Your task to perform on an android device: Go to notification settings Image 0: 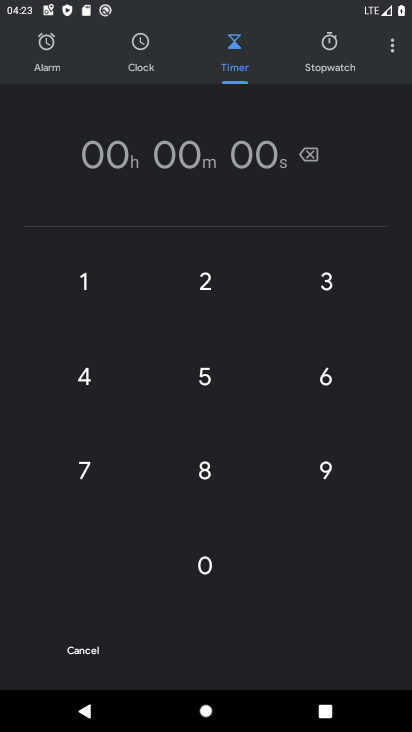
Step 0: press home button
Your task to perform on an android device: Go to notification settings Image 1: 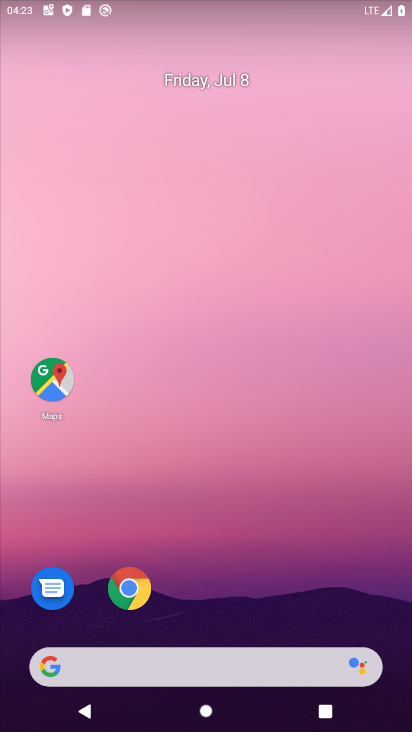
Step 1: drag from (215, 536) to (192, 135)
Your task to perform on an android device: Go to notification settings Image 2: 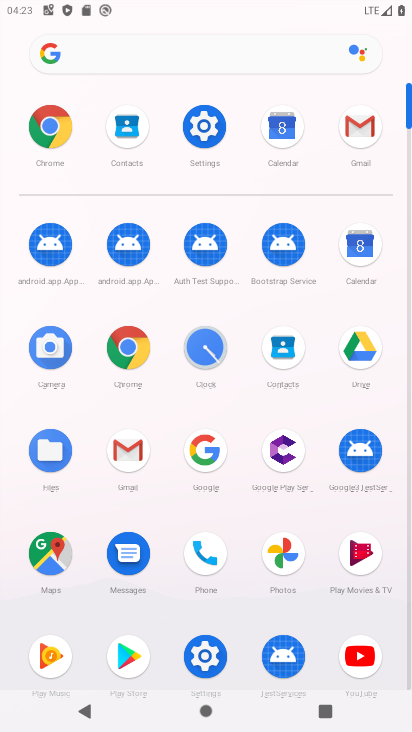
Step 2: click (203, 131)
Your task to perform on an android device: Go to notification settings Image 3: 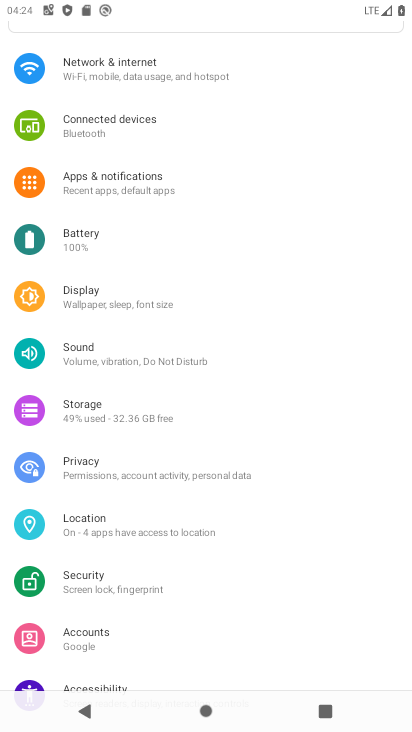
Step 3: click (109, 187)
Your task to perform on an android device: Go to notification settings Image 4: 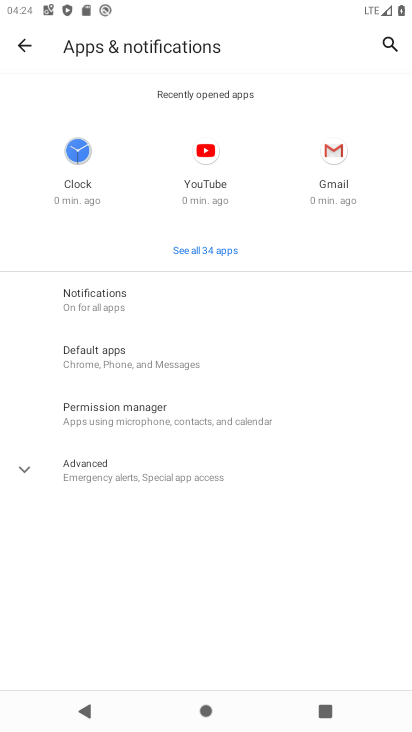
Step 4: click (97, 294)
Your task to perform on an android device: Go to notification settings Image 5: 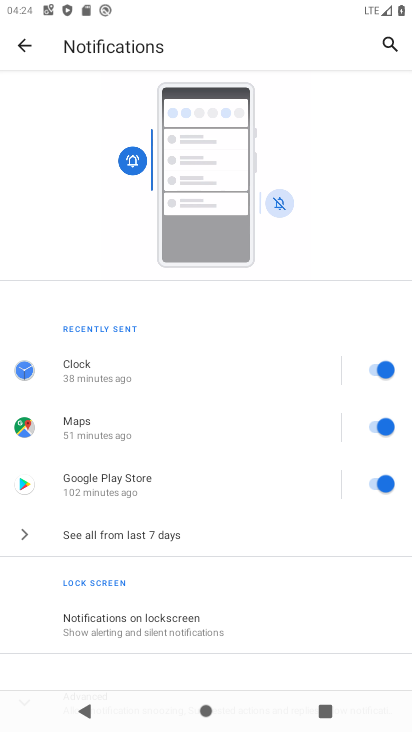
Step 5: task complete